Your task to perform on an android device: toggle javascript in the chrome app Image 0: 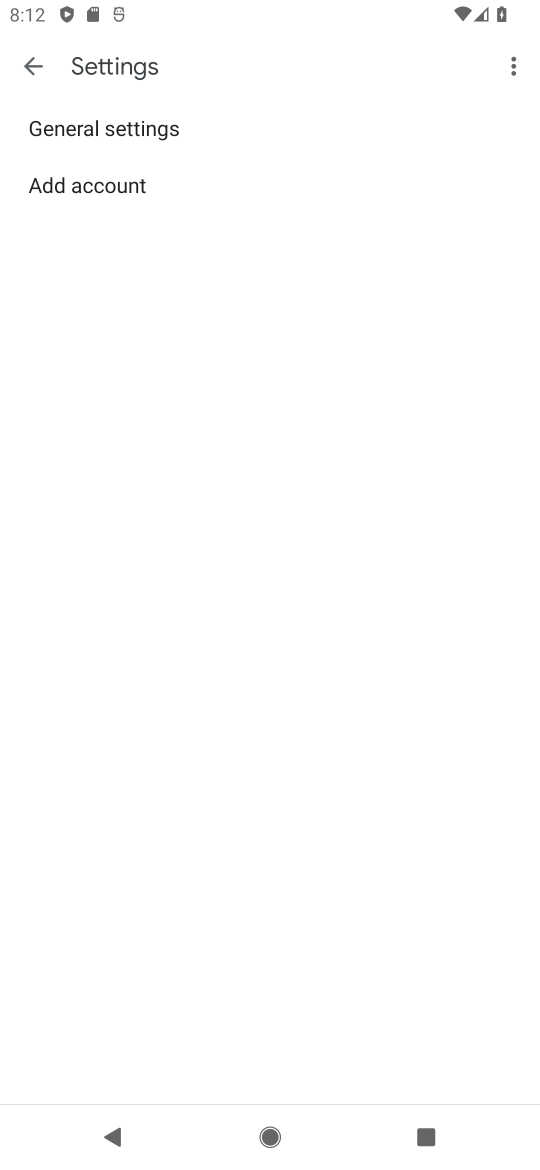
Step 0: press back button
Your task to perform on an android device: toggle javascript in the chrome app Image 1: 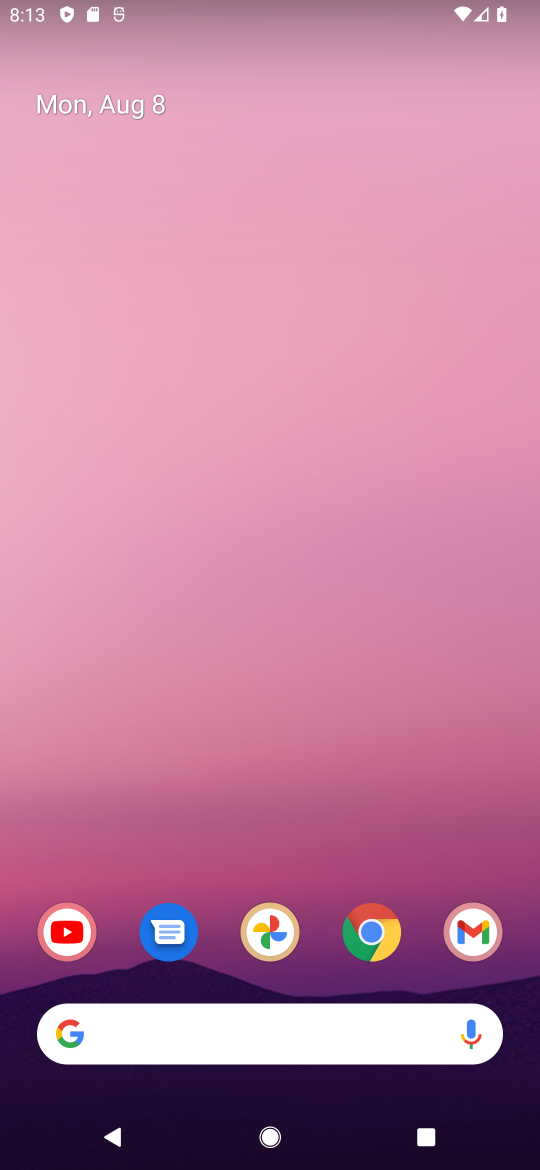
Step 1: click (378, 929)
Your task to perform on an android device: toggle javascript in the chrome app Image 2: 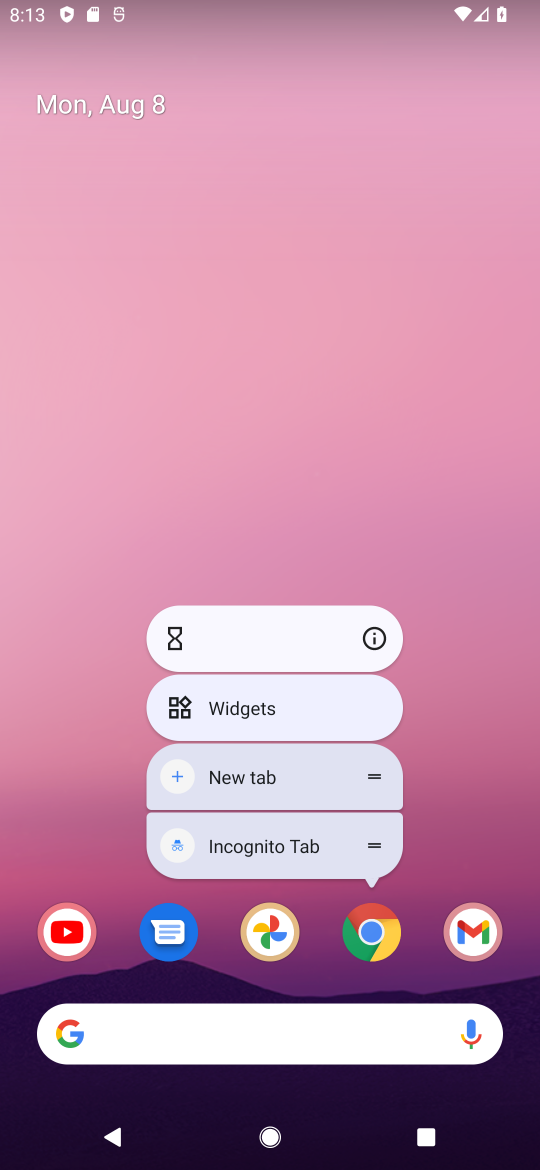
Step 2: click (363, 926)
Your task to perform on an android device: toggle javascript in the chrome app Image 3: 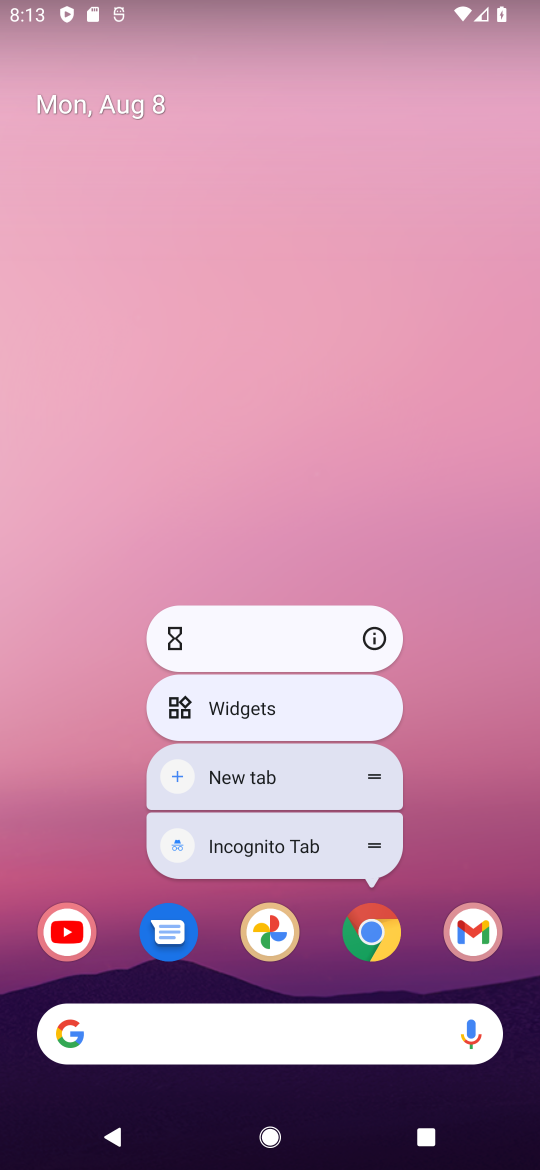
Step 3: click (370, 931)
Your task to perform on an android device: toggle javascript in the chrome app Image 4: 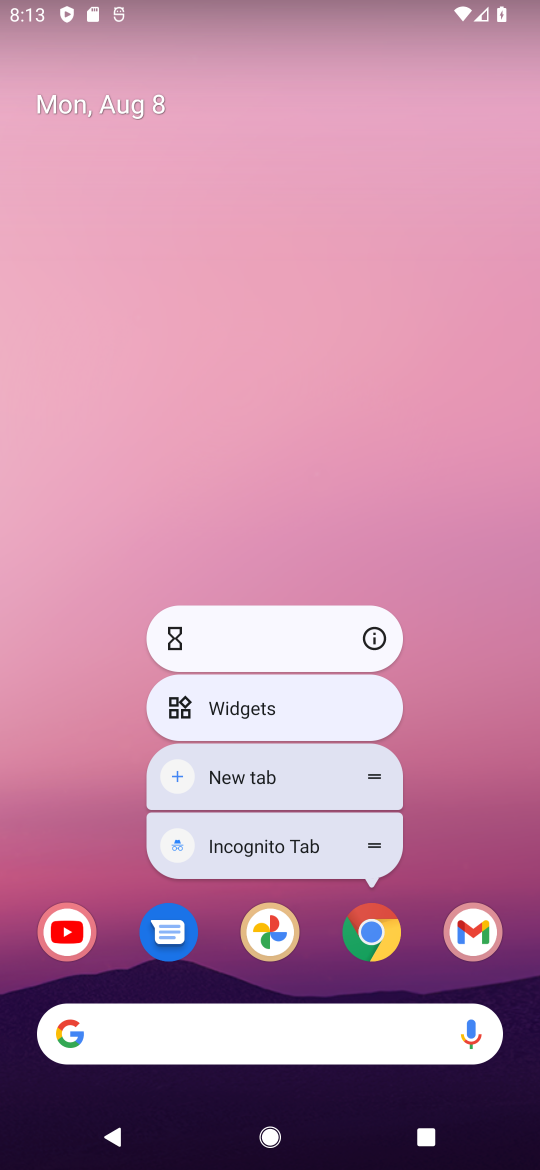
Step 4: click (370, 946)
Your task to perform on an android device: toggle javascript in the chrome app Image 5: 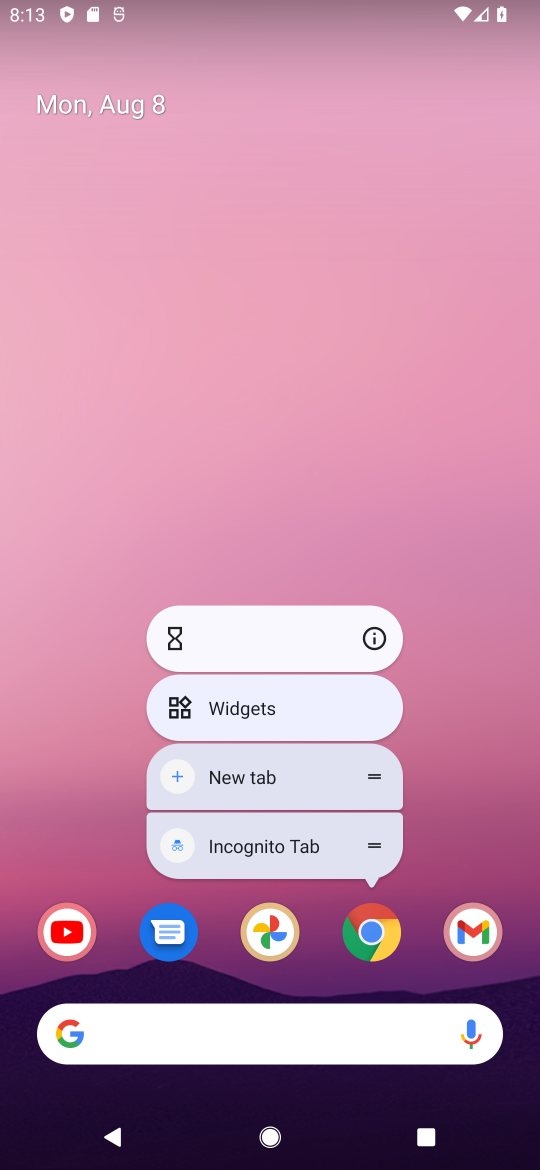
Step 5: click (373, 938)
Your task to perform on an android device: toggle javascript in the chrome app Image 6: 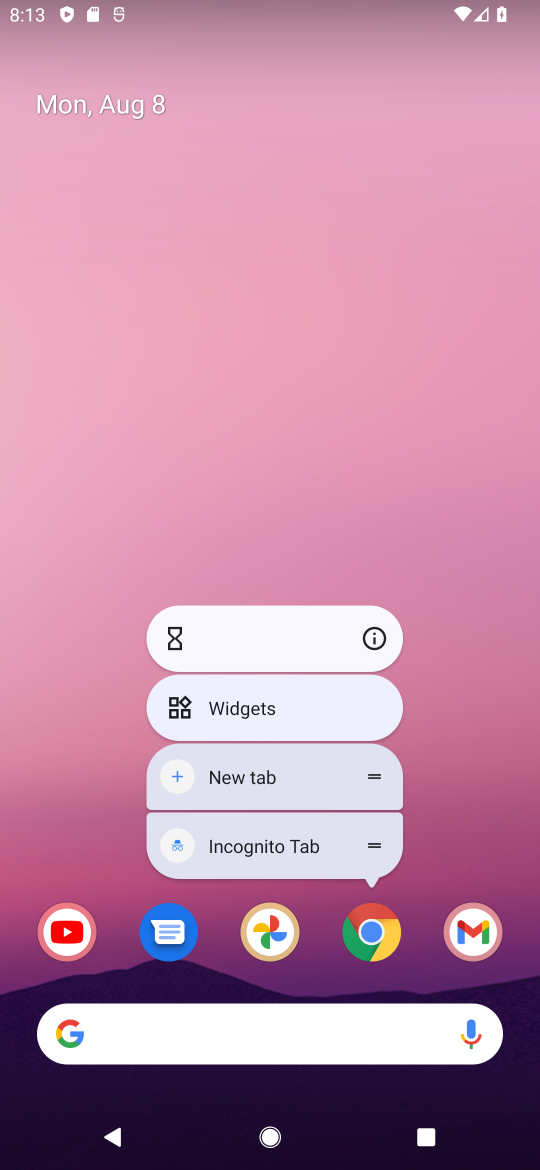
Step 6: click (385, 933)
Your task to perform on an android device: toggle javascript in the chrome app Image 7: 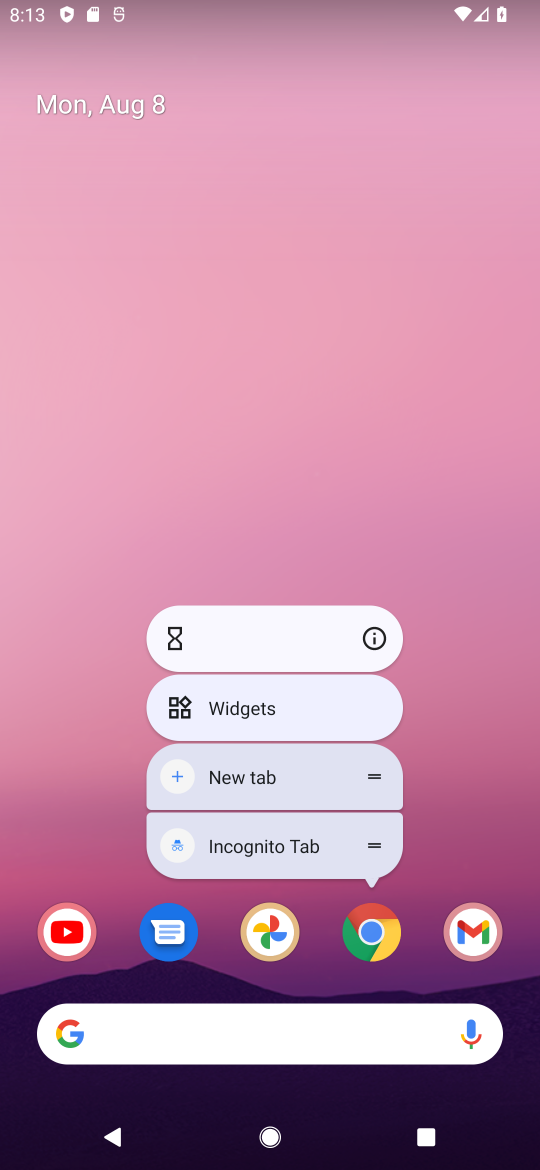
Step 7: click (365, 922)
Your task to perform on an android device: toggle javascript in the chrome app Image 8: 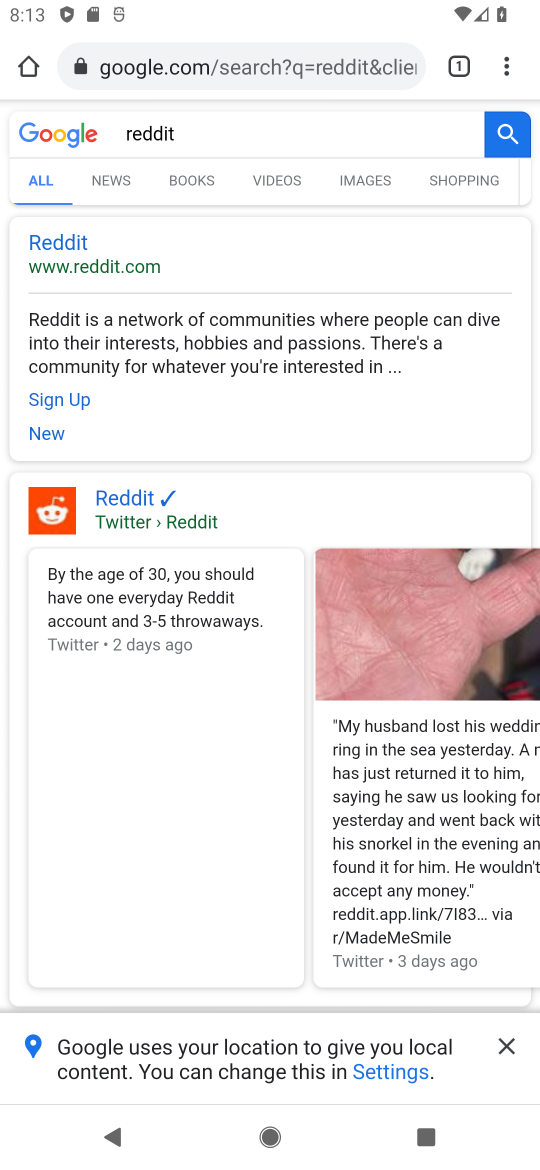
Step 8: drag from (506, 60) to (301, 779)
Your task to perform on an android device: toggle javascript in the chrome app Image 9: 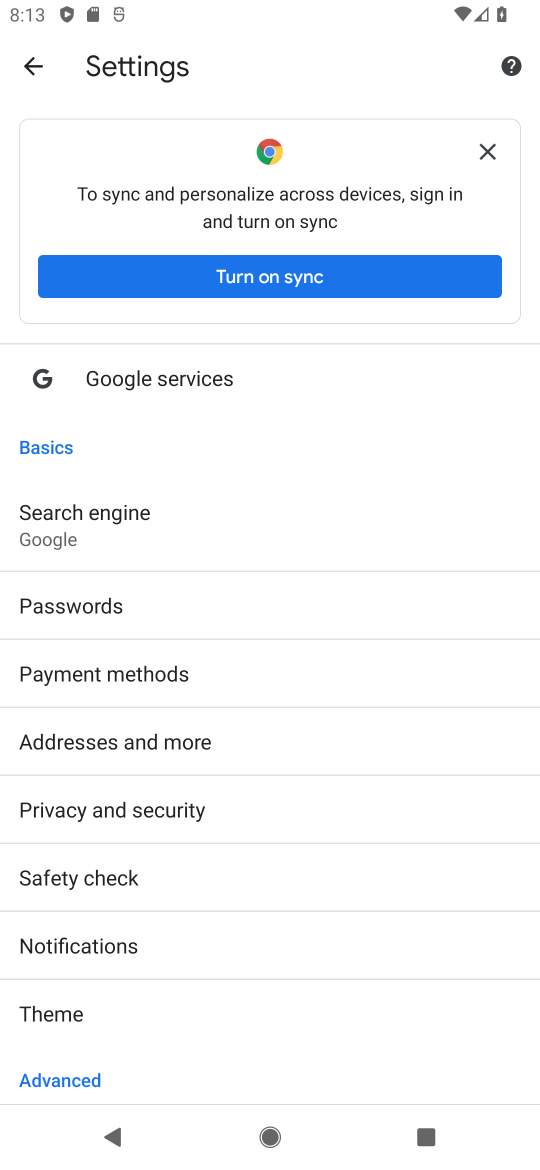
Step 9: drag from (136, 995) to (306, 239)
Your task to perform on an android device: toggle javascript in the chrome app Image 10: 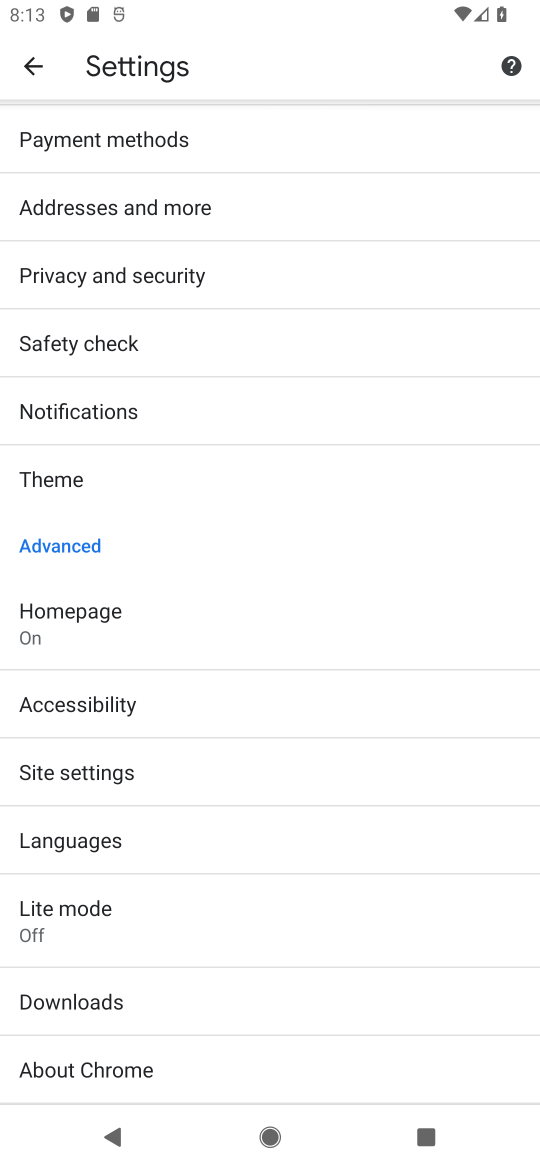
Step 10: click (40, 772)
Your task to perform on an android device: toggle javascript in the chrome app Image 11: 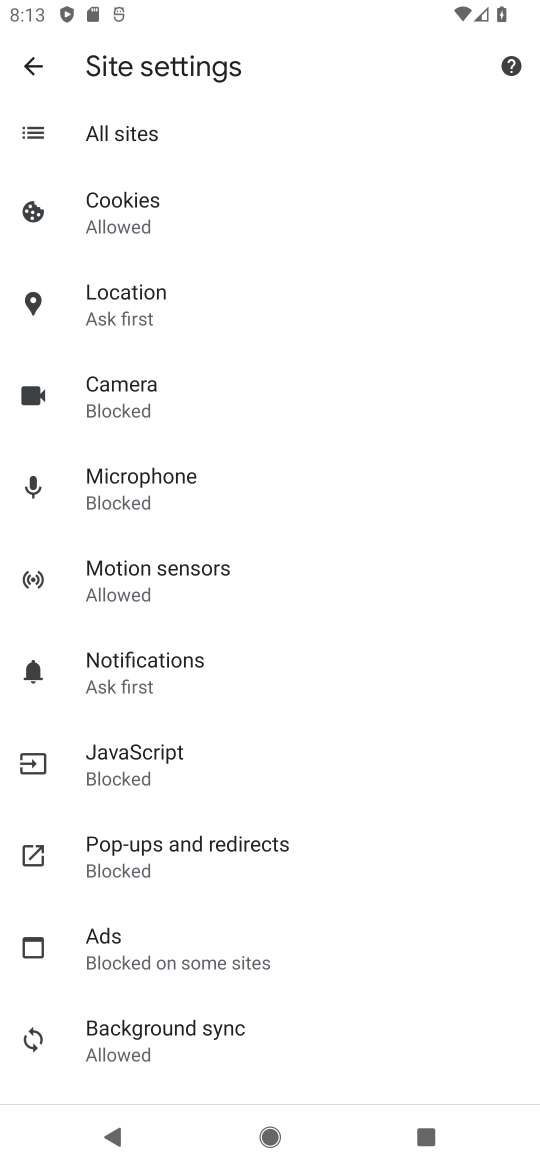
Step 11: click (151, 757)
Your task to perform on an android device: toggle javascript in the chrome app Image 12: 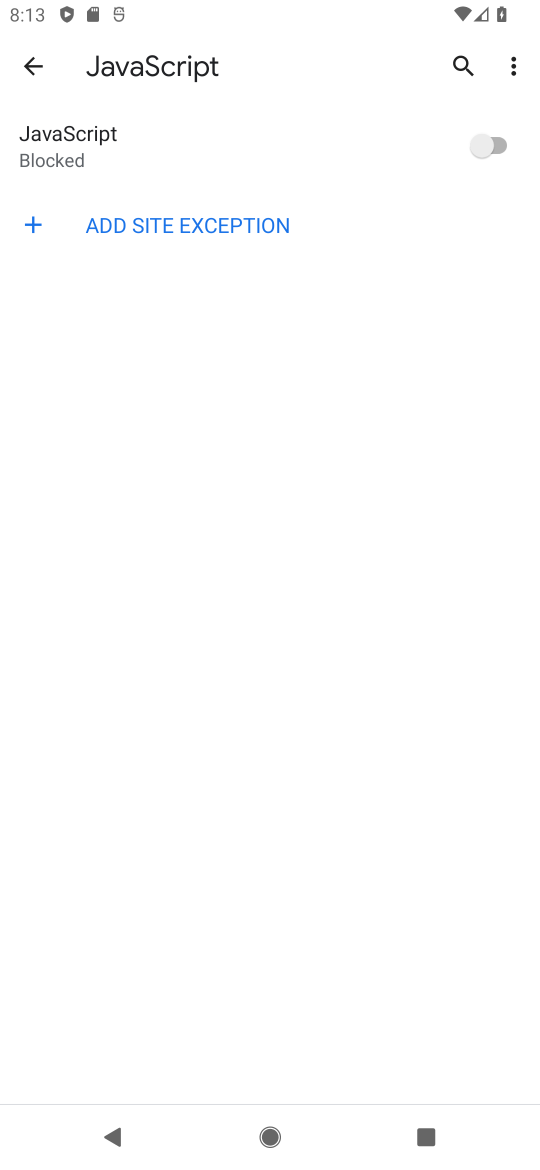
Step 12: click (487, 150)
Your task to perform on an android device: toggle javascript in the chrome app Image 13: 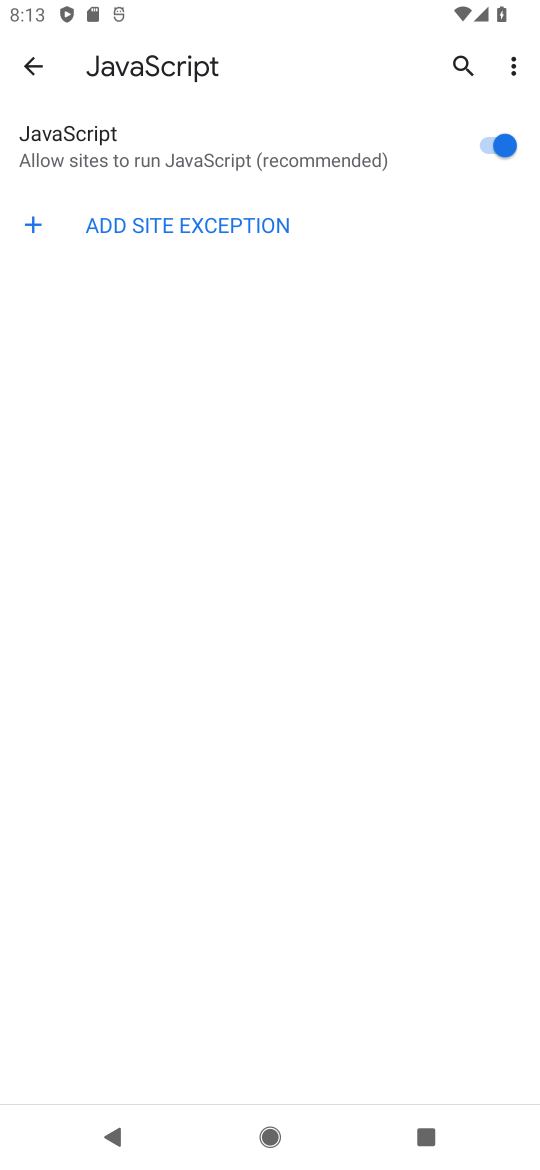
Step 13: task complete